Your task to perform on an android device: Open battery settings Image 0: 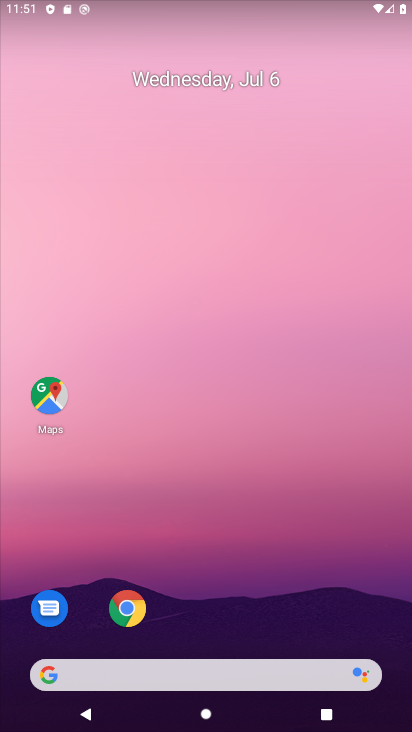
Step 0: drag from (261, 556) to (174, 202)
Your task to perform on an android device: Open battery settings Image 1: 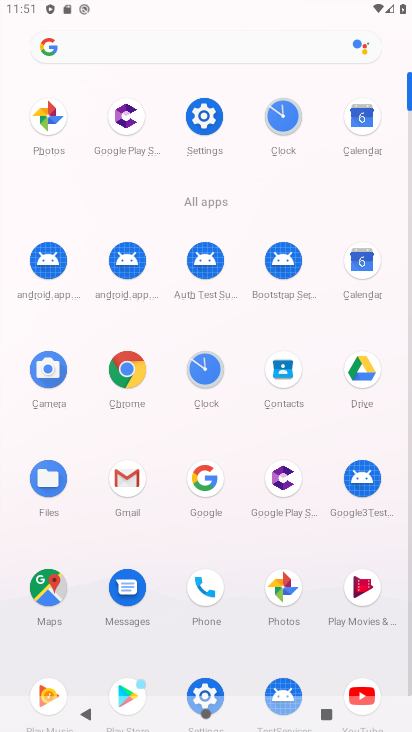
Step 1: click (205, 120)
Your task to perform on an android device: Open battery settings Image 2: 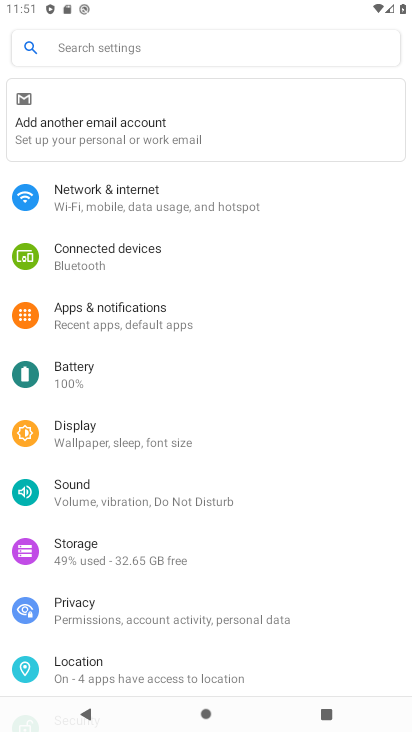
Step 2: click (76, 375)
Your task to perform on an android device: Open battery settings Image 3: 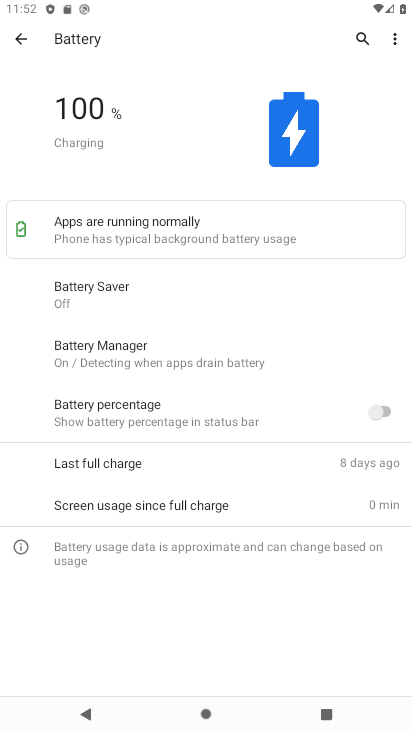
Step 3: task complete